Your task to perform on an android device: Search for the best websites on the internet Image 0: 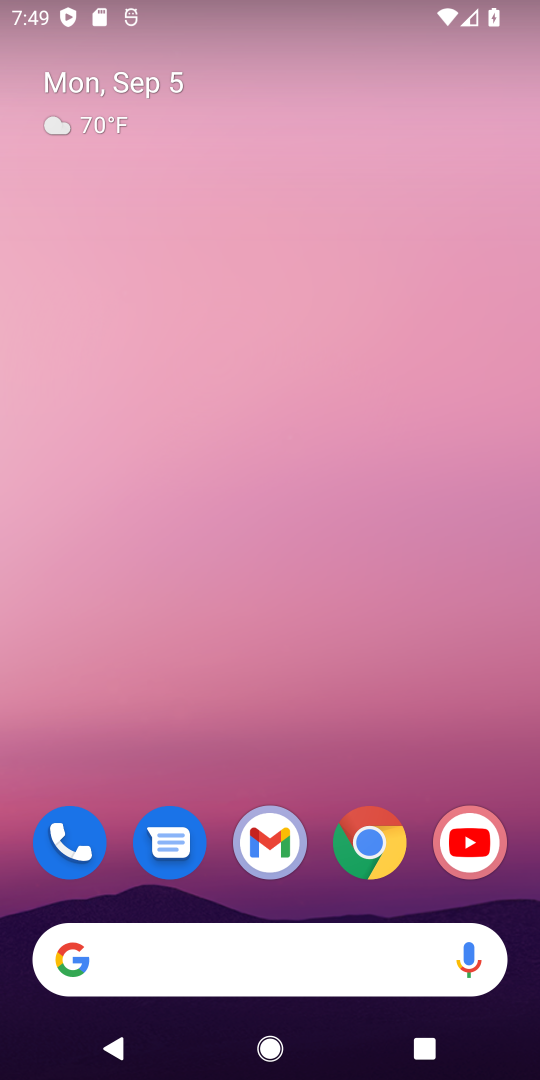
Step 0: click (370, 844)
Your task to perform on an android device: Search for the best websites on the internet Image 1: 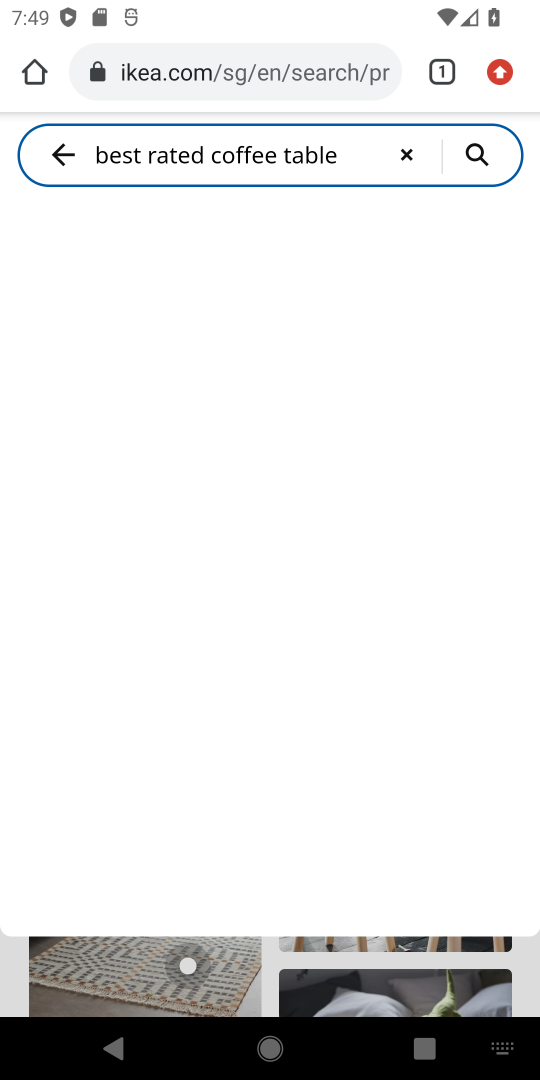
Step 1: click (300, 75)
Your task to perform on an android device: Search for the best websites on the internet Image 2: 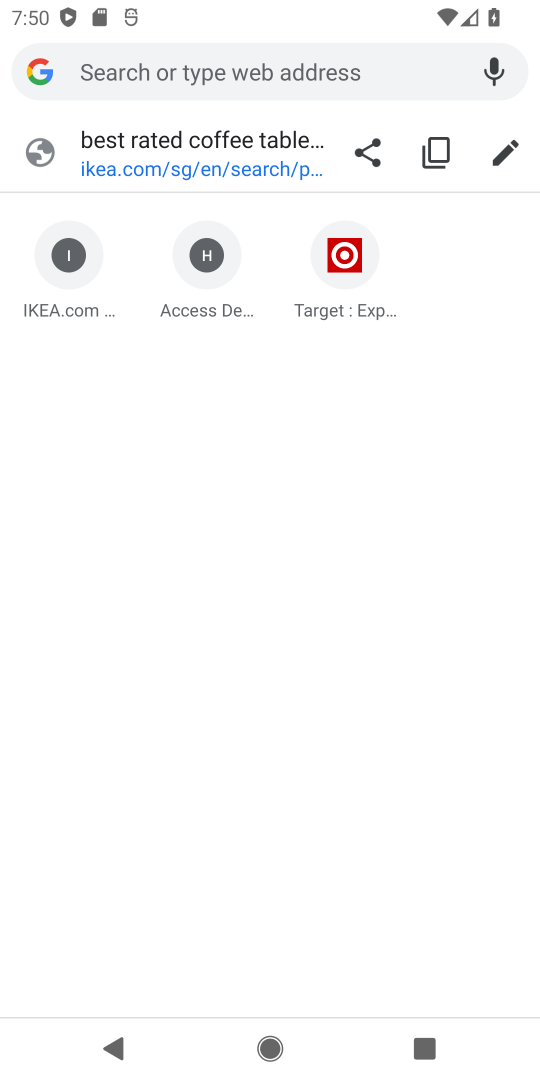
Step 2: type " best websites on the internet"
Your task to perform on an android device: Search for the best websites on the internet Image 3: 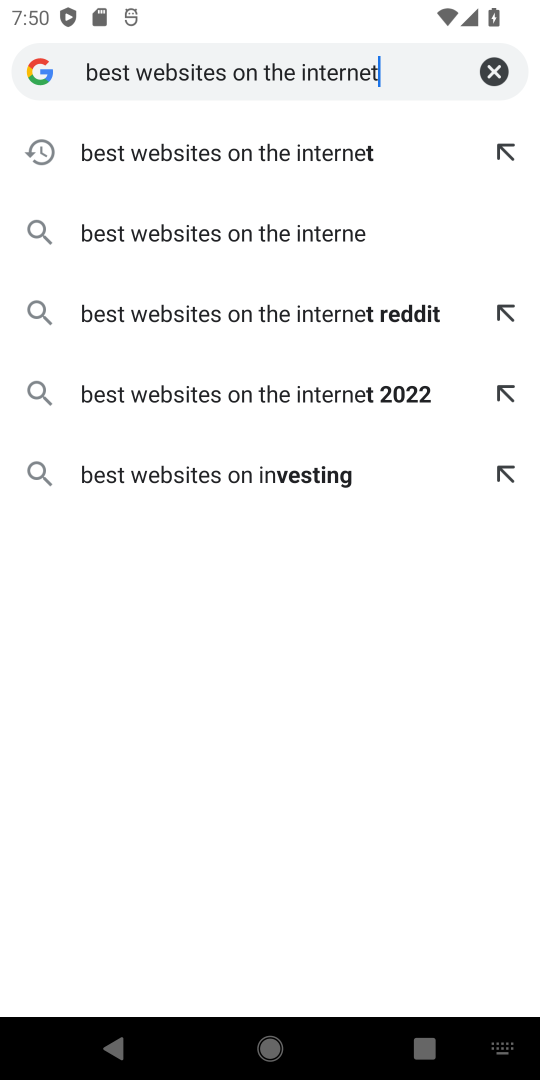
Step 3: type ""
Your task to perform on an android device: Search for the best websites on the internet Image 4: 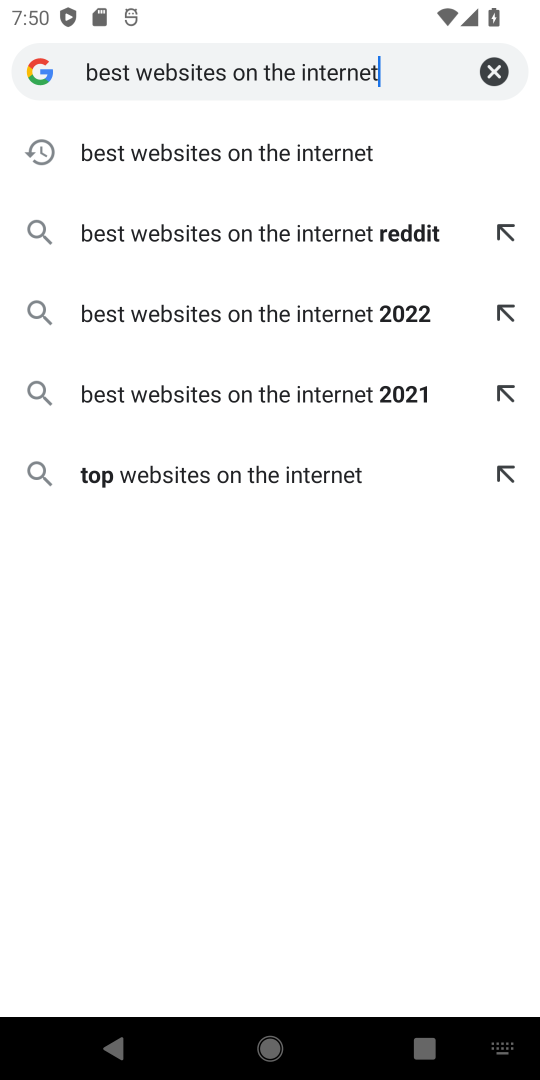
Step 4: click (227, 151)
Your task to perform on an android device: Search for the best websites on the internet Image 5: 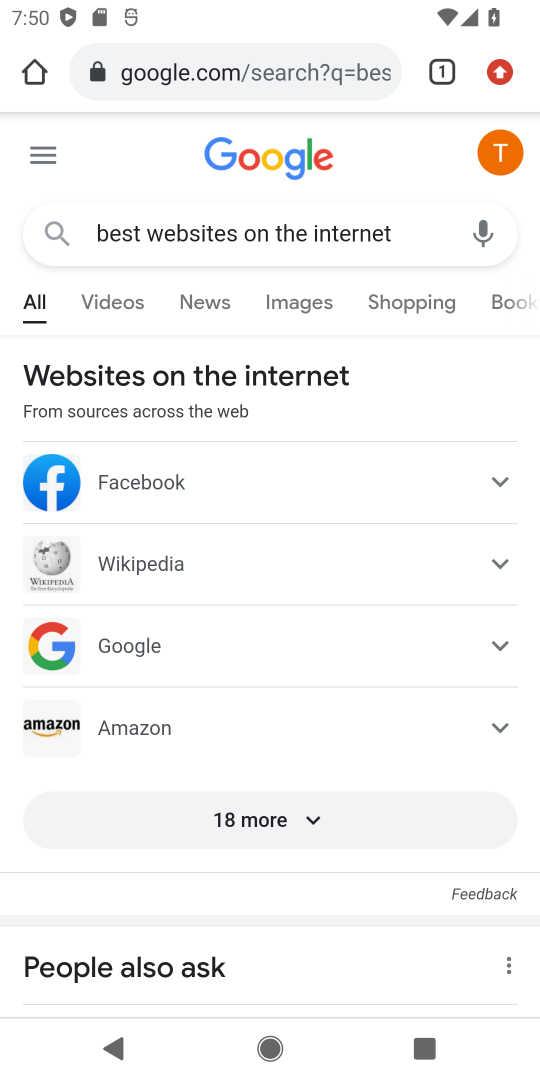
Step 5: click (400, 543)
Your task to perform on an android device: Search for the best websites on the internet Image 6: 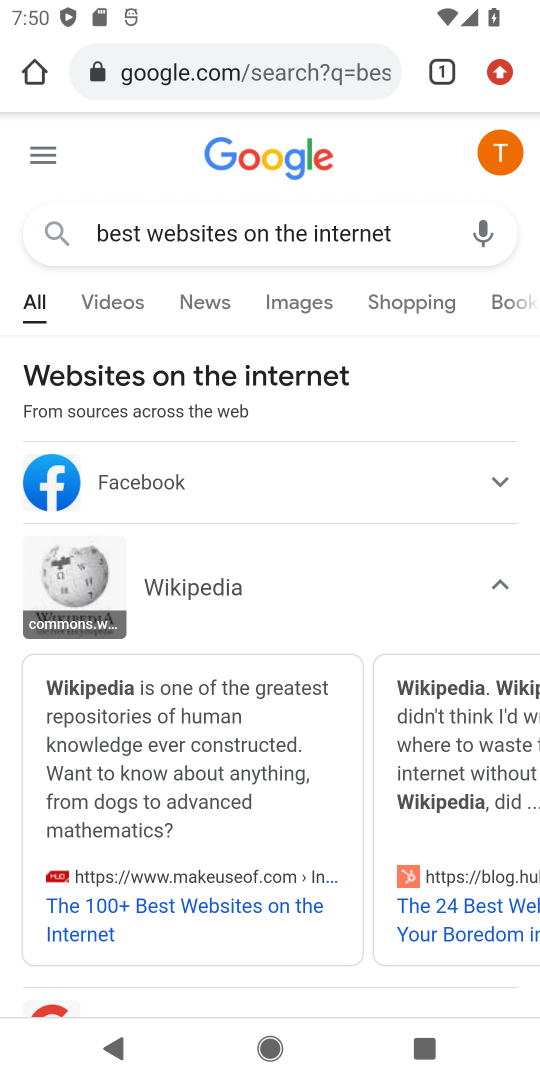
Step 6: drag from (339, 933) to (428, 514)
Your task to perform on an android device: Search for the best websites on the internet Image 7: 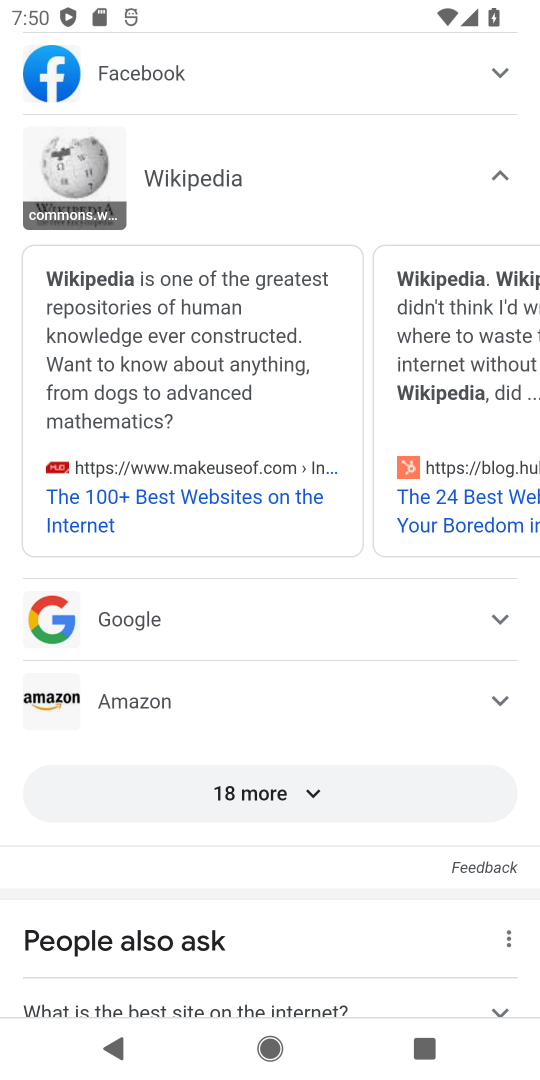
Step 7: drag from (277, 738) to (268, 643)
Your task to perform on an android device: Search for the best websites on the internet Image 8: 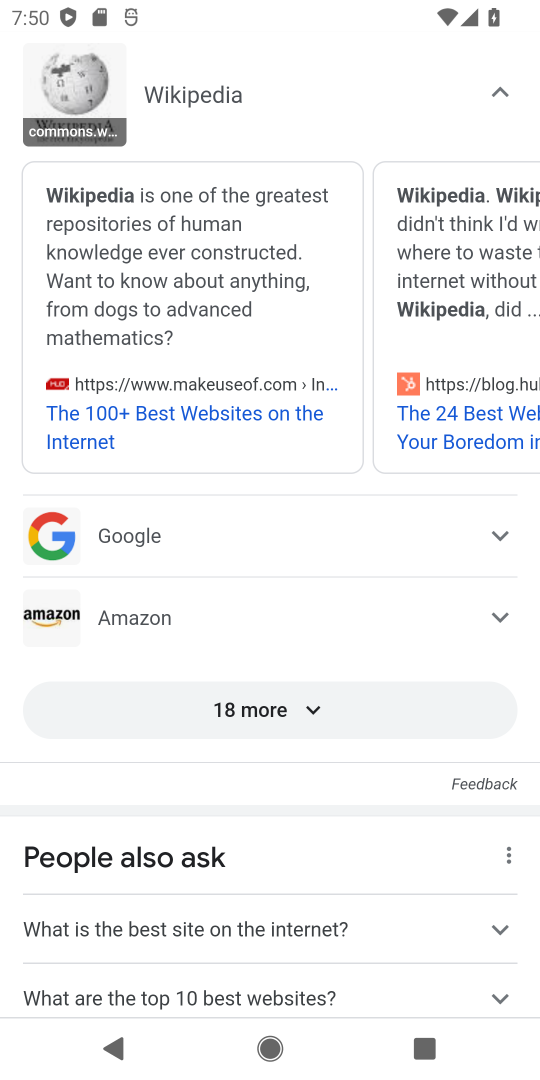
Step 8: click (493, 928)
Your task to perform on an android device: Search for the best websites on the internet Image 9: 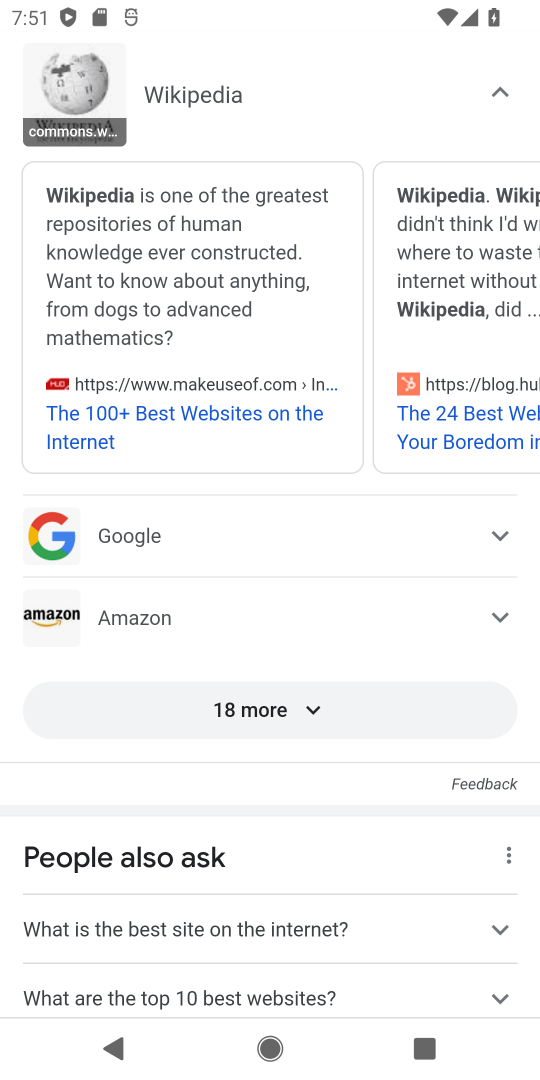
Step 9: click (416, 931)
Your task to perform on an android device: Search for the best websites on the internet Image 10: 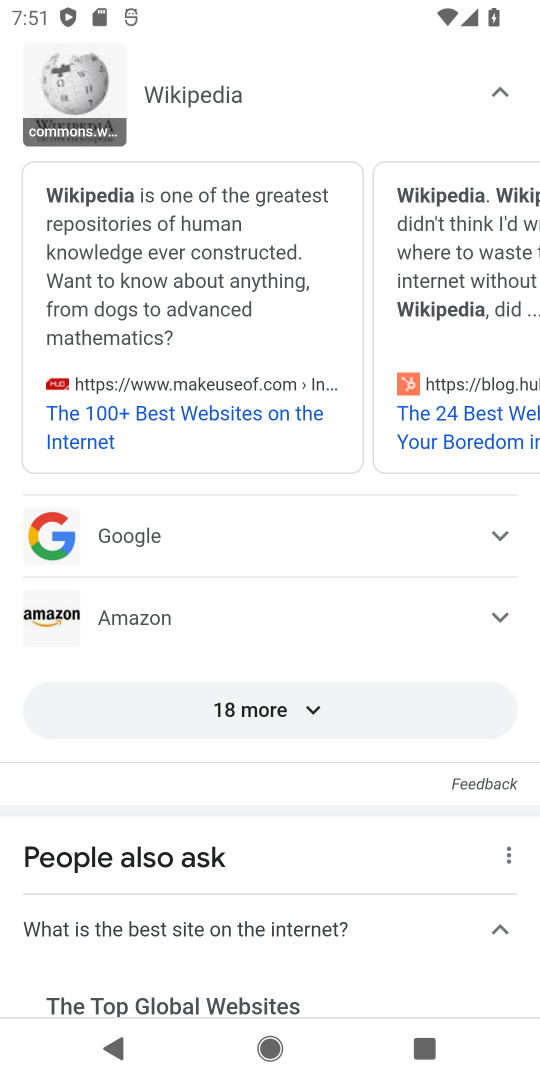
Step 10: task complete